Your task to perform on an android device: Is it going to rain tomorrow? Image 0: 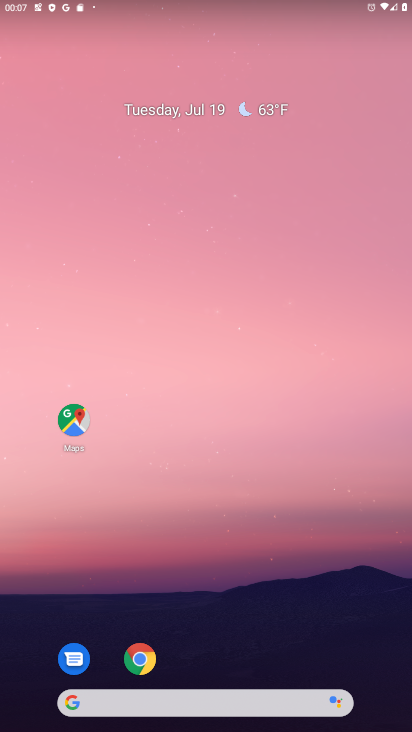
Step 0: press home button
Your task to perform on an android device: Is it going to rain tomorrow? Image 1: 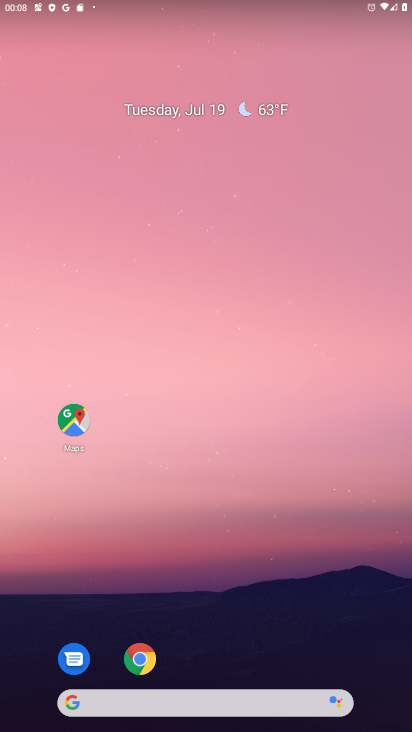
Step 1: click (151, 652)
Your task to perform on an android device: Is it going to rain tomorrow? Image 2: 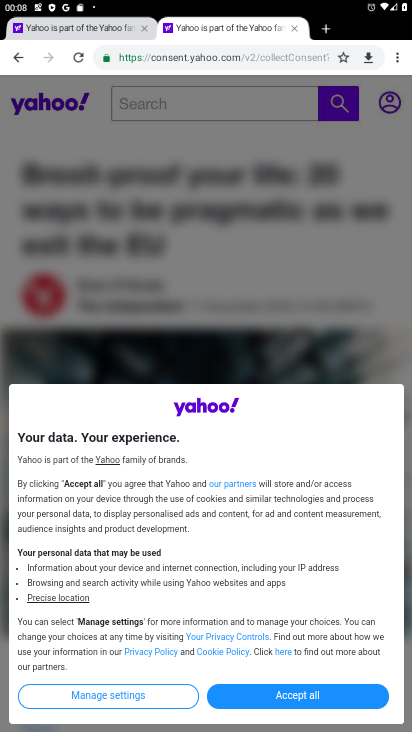
Step 2: click (173, 58)
Your task to perform on an android device: Is it going to rain tomorrow? Image 3: 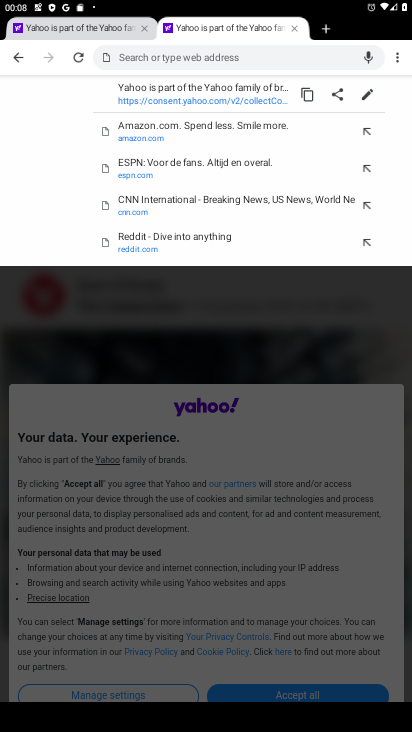
Step 3: type "Is it going to rain tomorrow?"
Your task to perform on an android device: Is it going to rain tomorrow? Image 4: 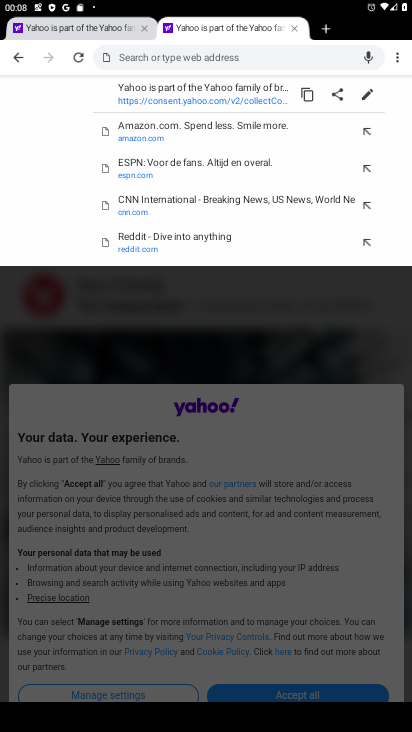
Step 4: click (163, 95)
Your task to perform on an android device: Is it going to rain tomorrow? Image 5: 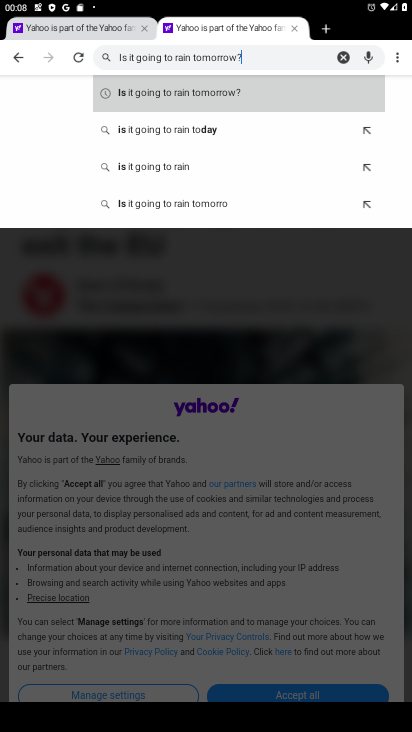
Step 5: type ""
Your task to perform on an android device: Is it going to rain tomorrow? Image 6: 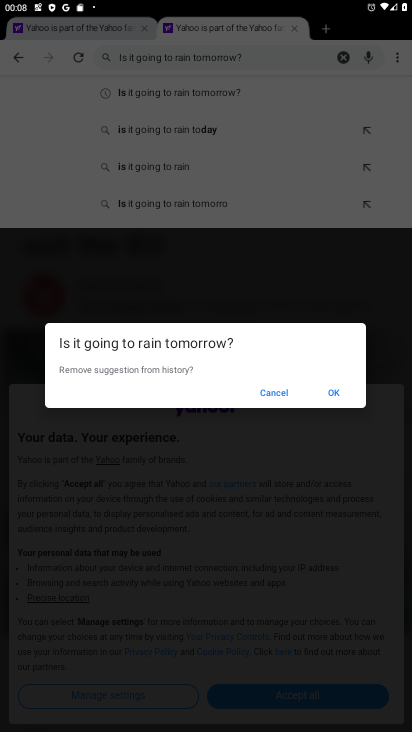
Step 6: click (163, 95)
Your task to perform on an android device: Is it going to rain tomorrow? Image 7: 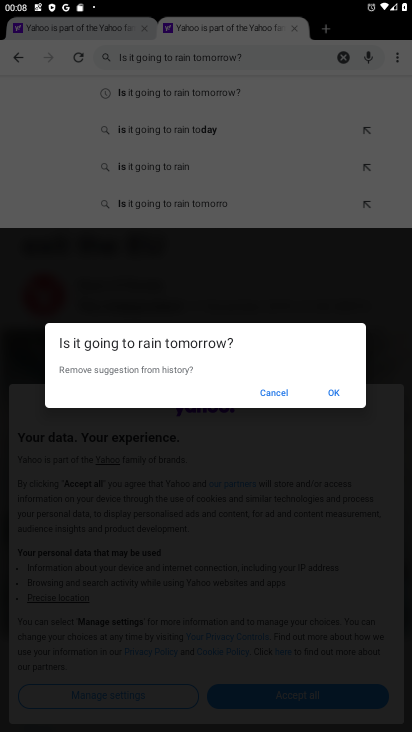
Step 7: click (163, 95)
Your task to perform on an android device: Is it going to rain tomorrow? Image 8: 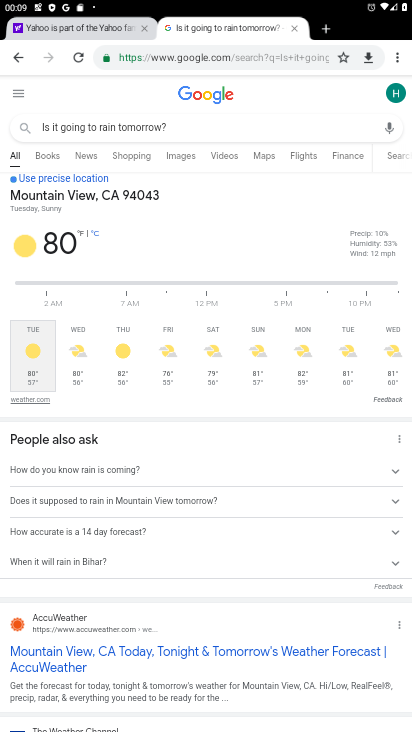
Step 8: task complete